Your task to perform on an android device: Set the phone to "Do not disturb". Image 0: 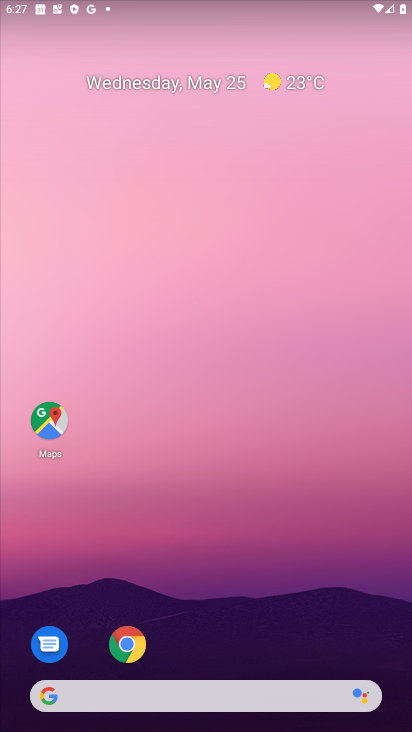
Step 0: drag from (386, 670) to (335, 78)
Your task to perform on an android device: Set the phone to "Do not disturb". Image 1: 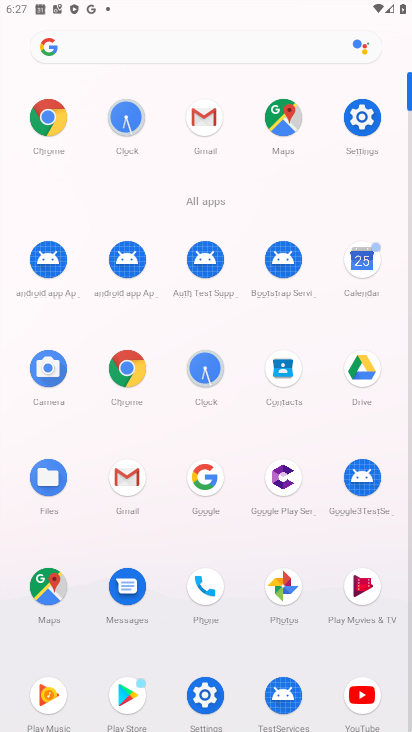
Step 1: drag from (183, 0) to (92, 487)
Your task to perform on an android device: Set the phone to "Do not disturb". Image 2: 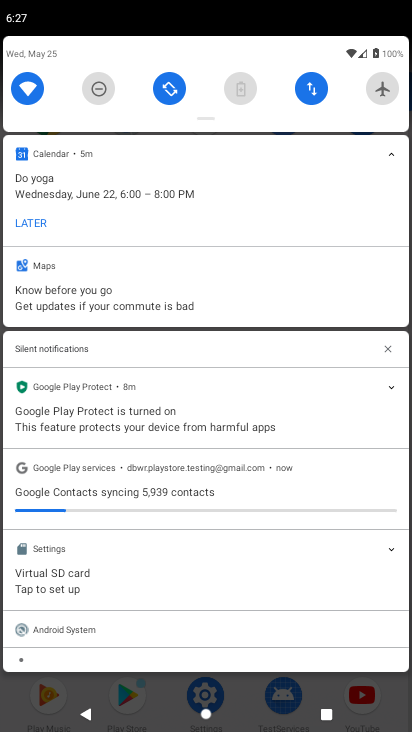
Step 2: click (92, 79)
Your task to perform on an android device: Set the phone to "Do not disturb". Image 3: 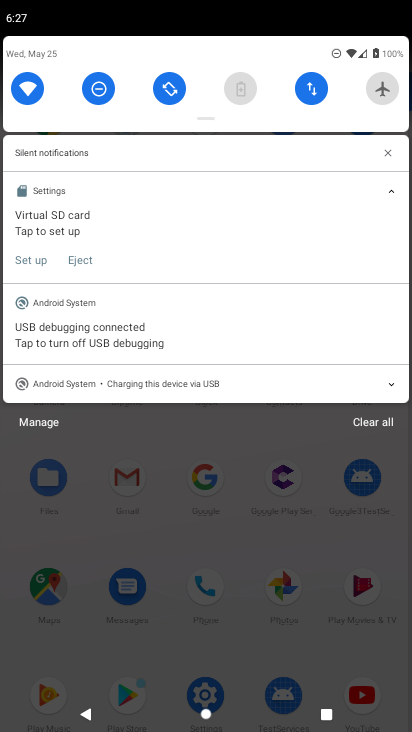
Step 3: task complete